Your task to perform on an android device: turn off location history Image 0: 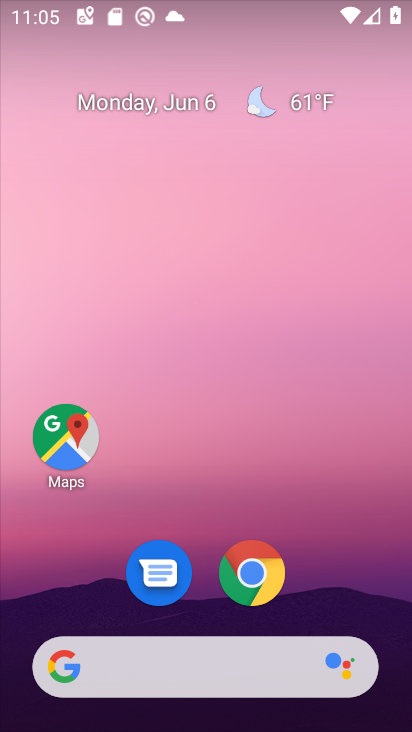
Step 0: drag from (217, 606) to (314, 0)
Your task to perform on an android device: turn off location history Image 1: 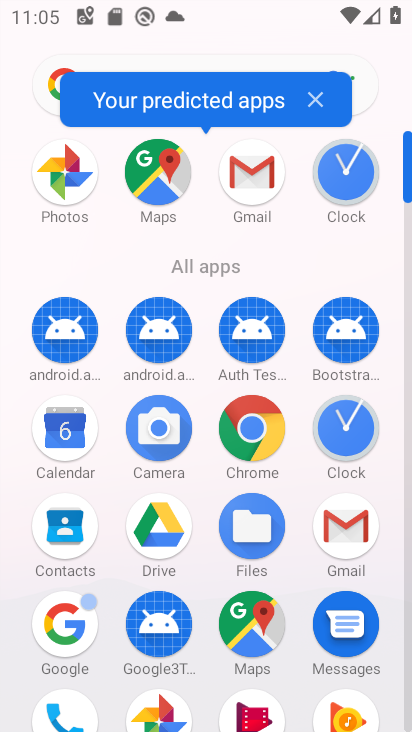
Step 1: drag from (273, 492) to (307, 2)
Your task to perform on an android device: turn off location history Image 2: 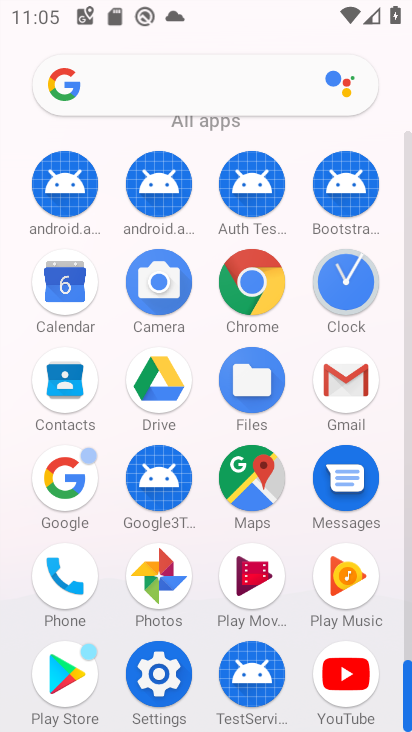
Step 2: click (153, 681)
Your task to perform on an android device: turn off location history Image 3: 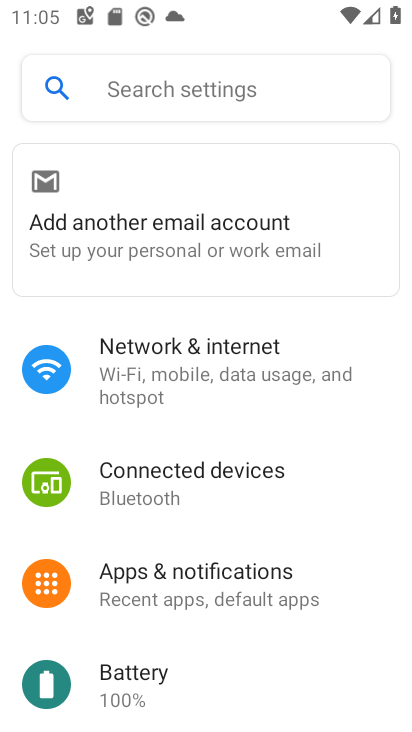
Step 3: drag from (202, 651) to (279, 245)
Your task to perform on an android device: turn off location history Image 4: 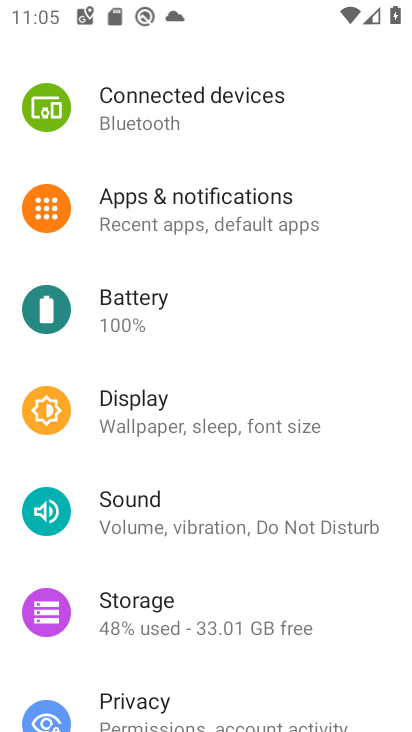
Step 4: drag from (205, 605) to (229, 439)
Your task to perform on an android device: turn off location history Image 5: 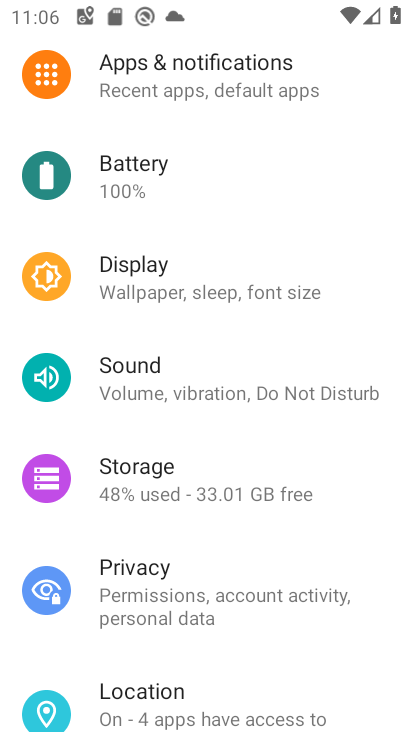
Step 5: click (152, 693)
Your task to perform on an android device: turn off location history Image 6: 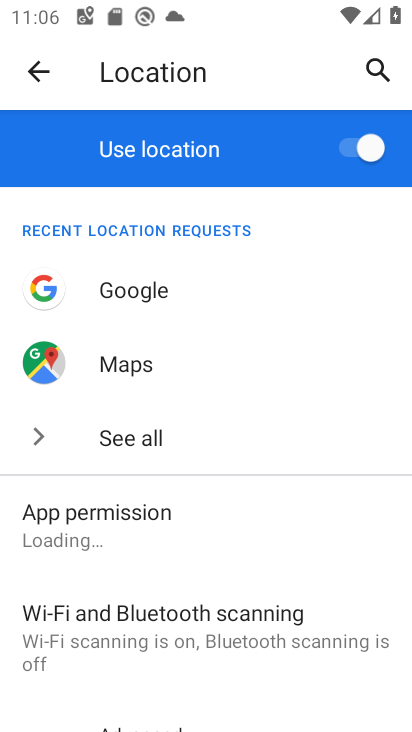
Step 6: drag from (133, 648) to (209, 369)
Your task to perform on an android device: turn off location history Image 7: 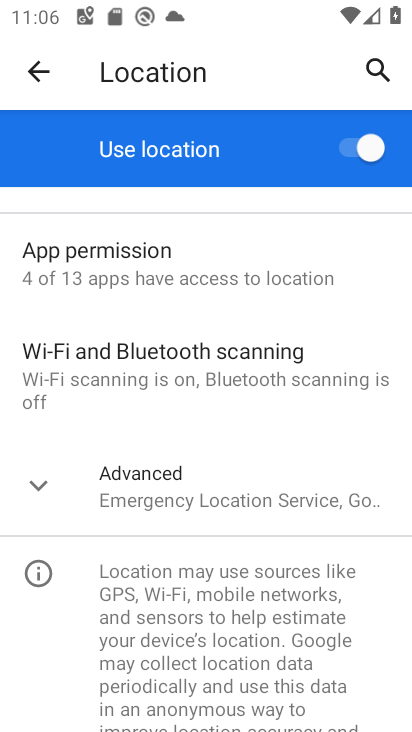
Step 7: click (196, 515)
Your task to perform on an android device: turn off location history Image 8: 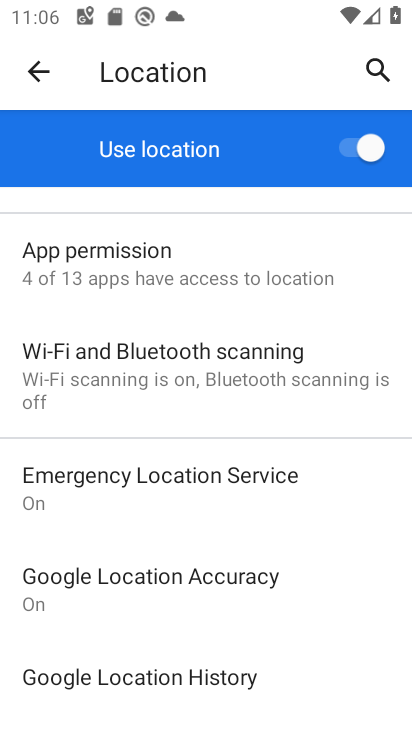
Step 8: click (199, 666)
Your task to perform on an android device: turn off location history Image 9: 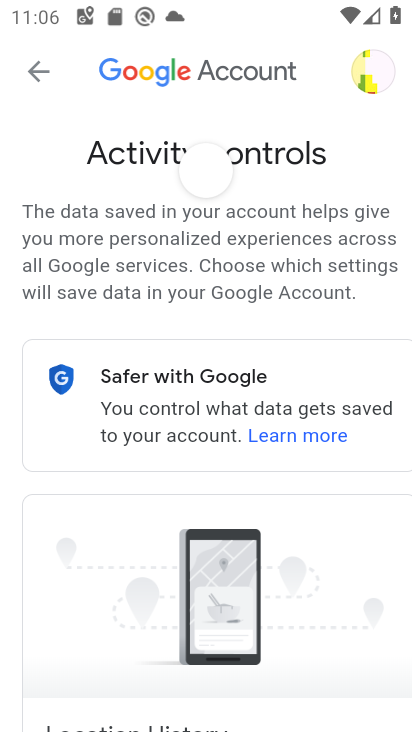
Step 9: task complete